Your task to perform on an android device: Open sound settings Image 0: 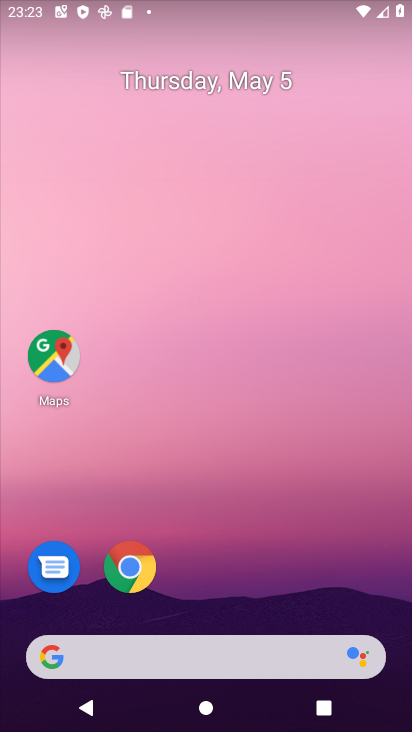
Step 0: drag from (195, 574) to (224, 162)
Your task to perform on an android device: Open sound settings Image 1: 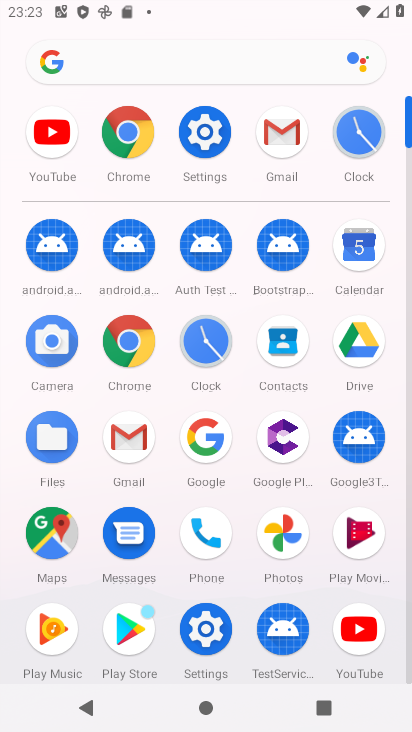
Step 1: click (219, 153)
Your task to perform on an android device: Open sound settings Image 2: 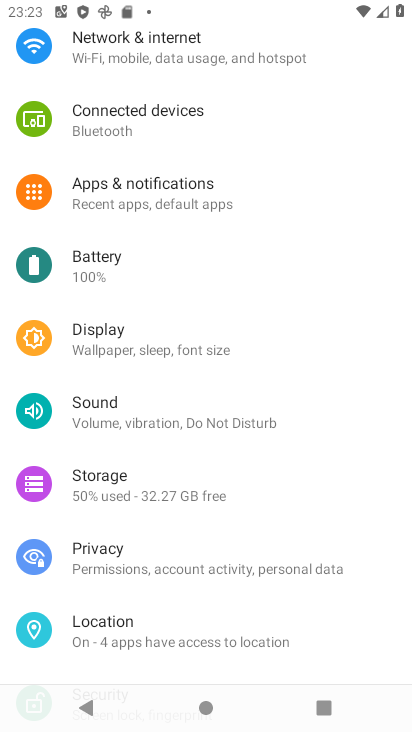
Step 2: click (135, 415)
Your task to perform on an android device: Open sound settings Image 3: 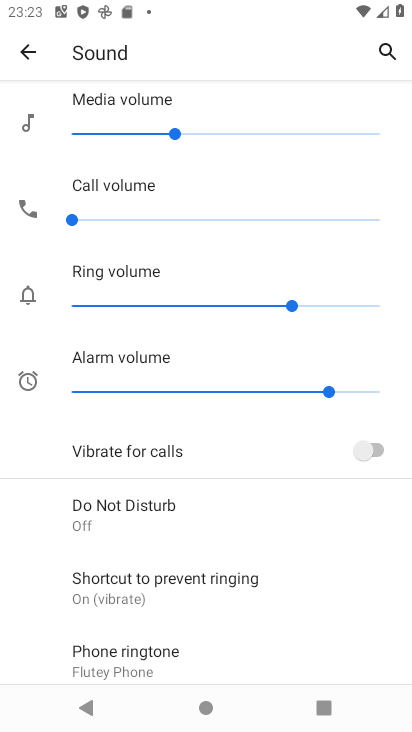
Step 3: task complete